Your task to perform on an android device: Show the shopping cart on target.com. Image 0: 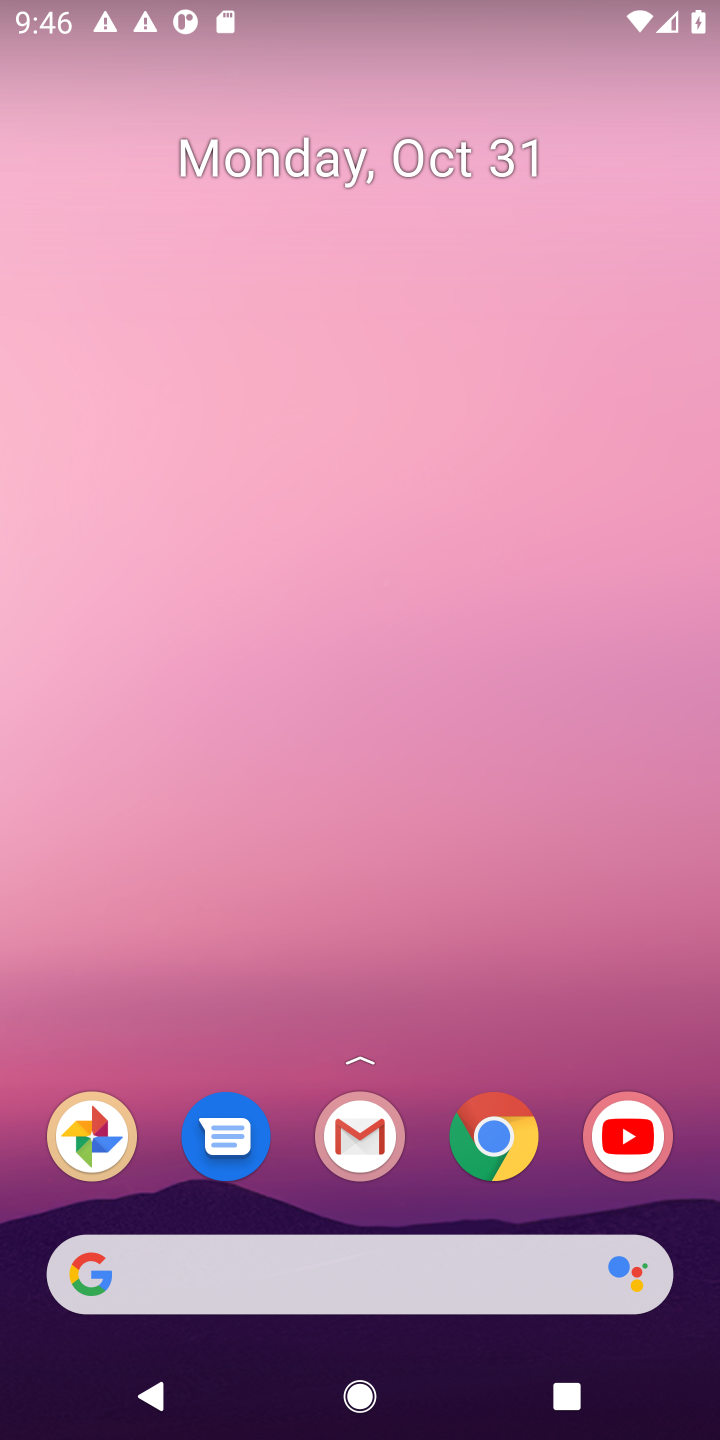
Step 0: click (135, 1275)
Your task to perform on an android device: Show the shopping cart on target.com. Image 1: 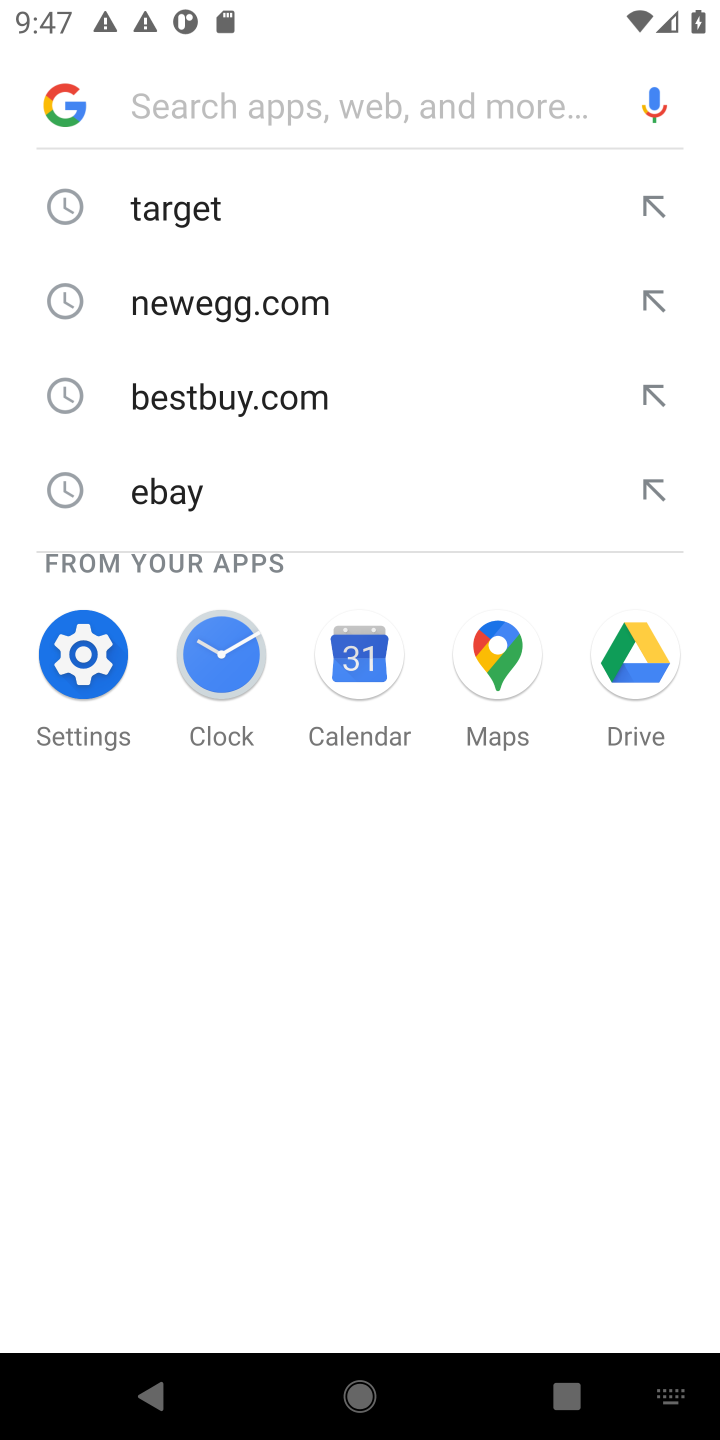
Step 1: press enter
Your task to perform on an android device: Show the shopping cart on target.com. Image 2: 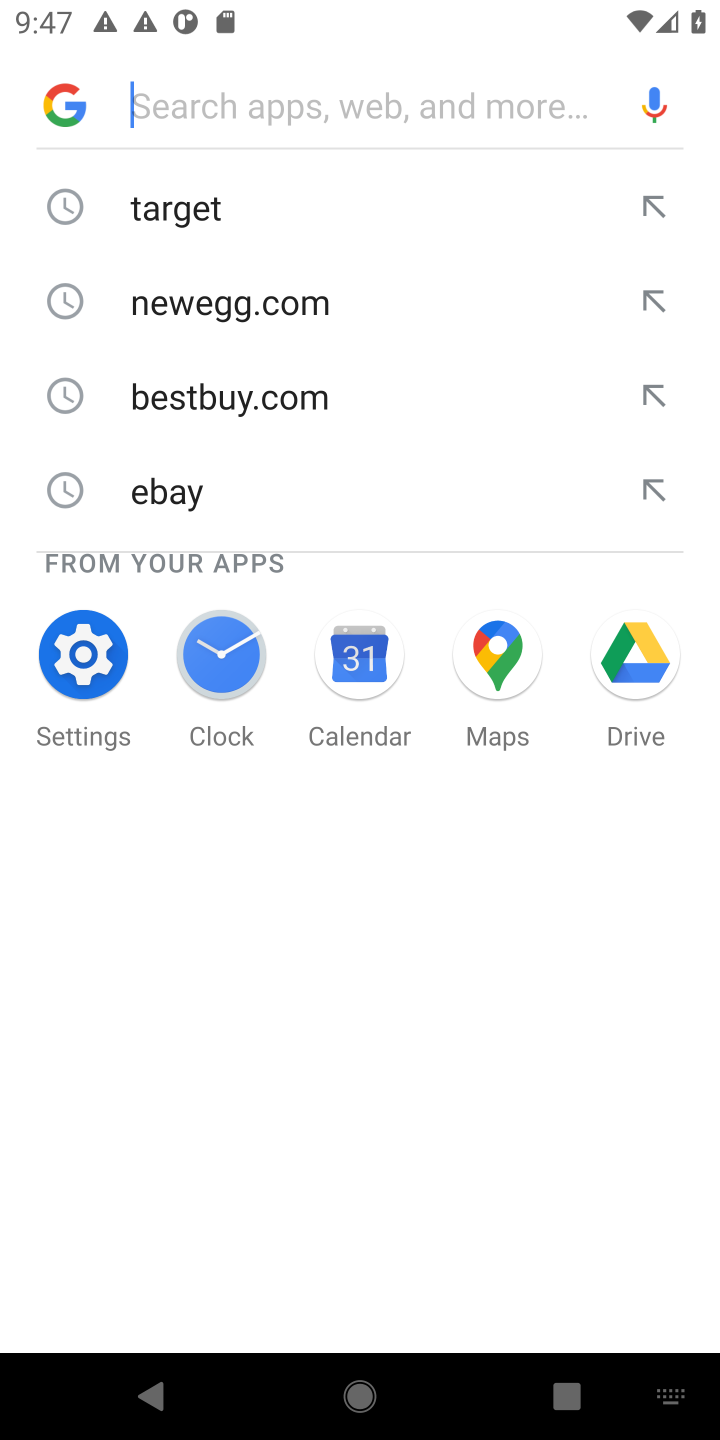
Step 2: type " target.com"
Your task to perform on an android device: Show the shopping cart on target.com. Image 3: 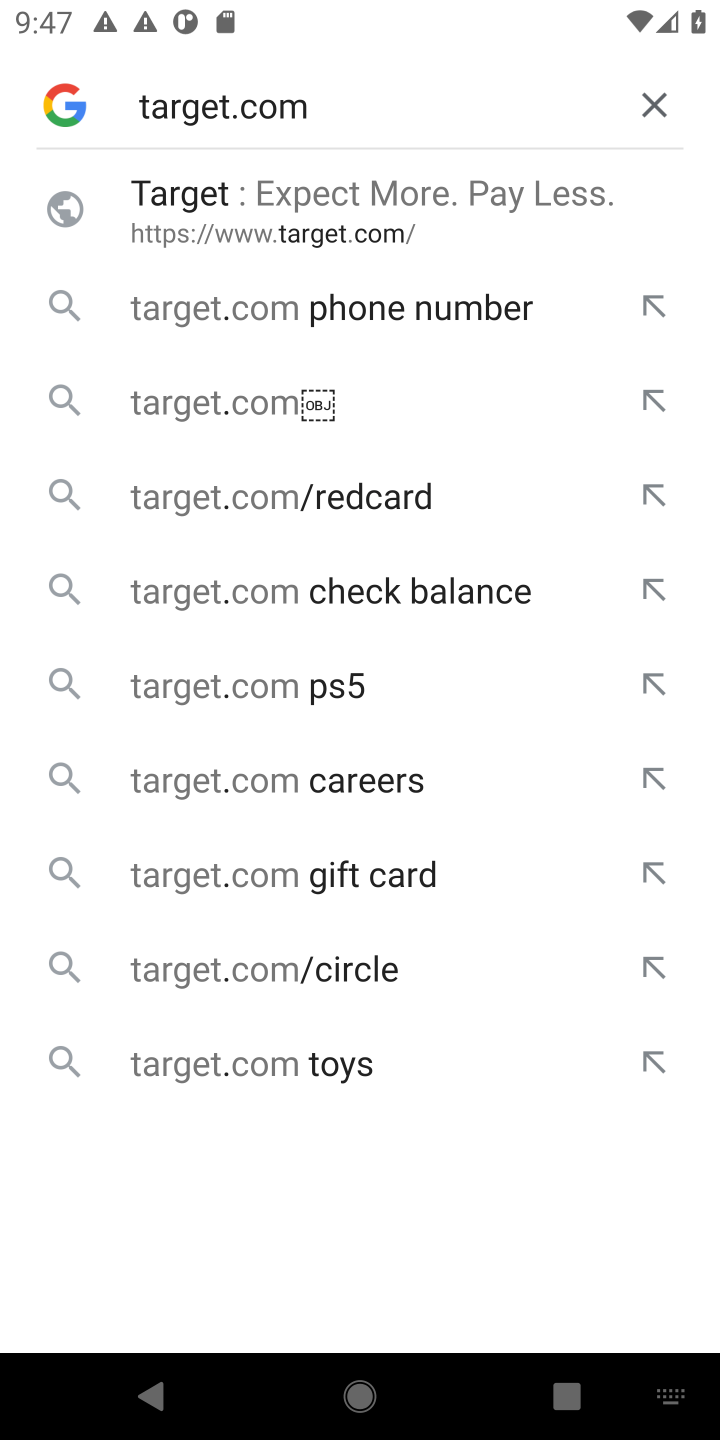
Step 3: press enter
Your task to perform on an android device: Show the shopping cart on target.com. Image 4: 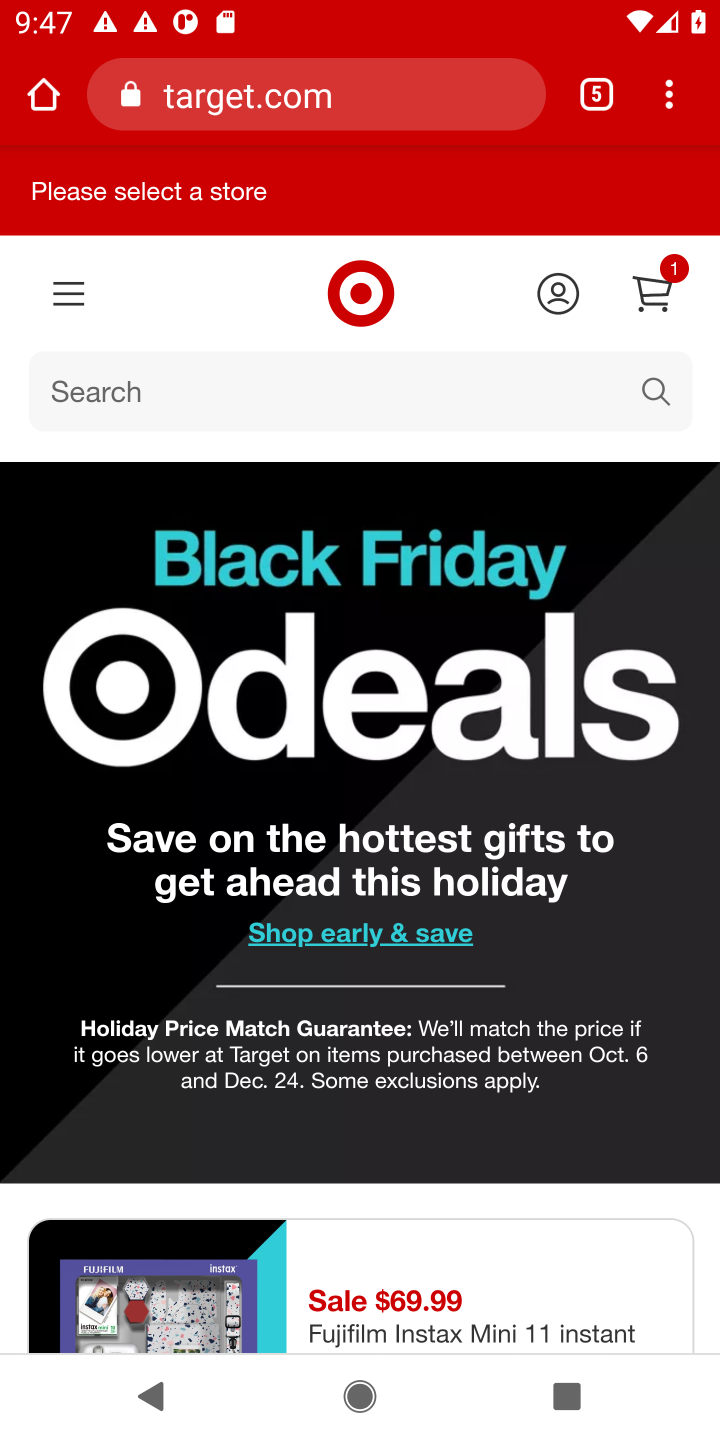
Step 4: click (102, 384)
Your task to perform on an android device: Show the shopping cart on target.com. Image 5: 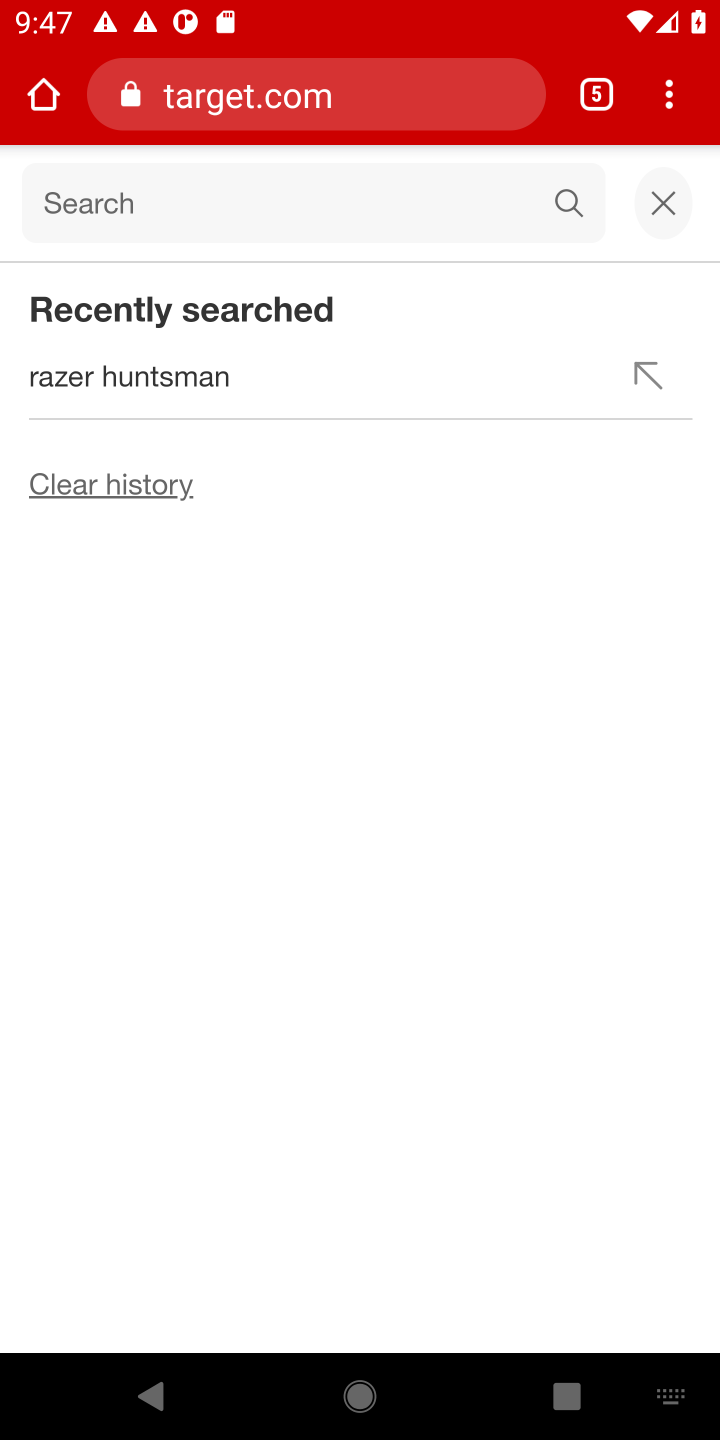
Step 5: press back button
Your task to perform on an android device: Show the shopping cart on target.com. Image 6: 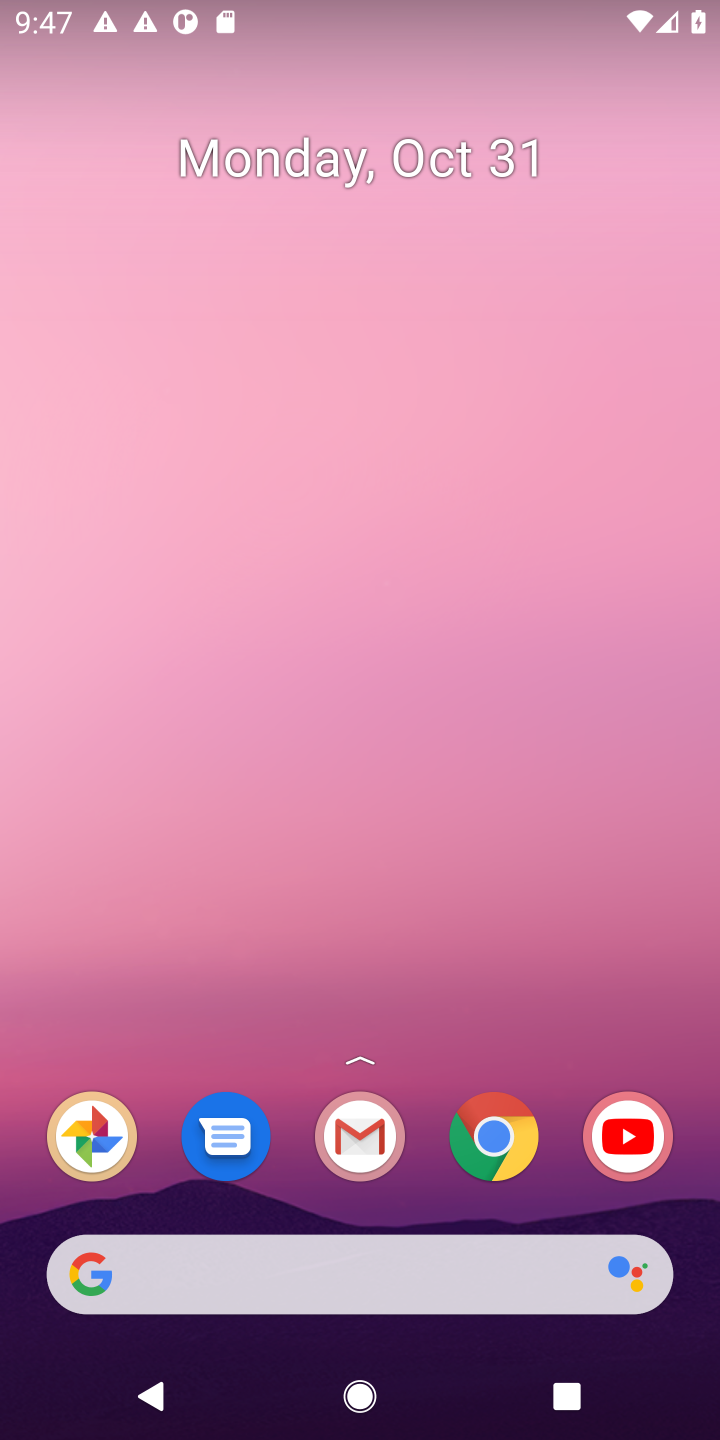
Step 6: click (141, 1278)
Your task to perform on an android device: Show the shopping cart on target.com. Image 7: 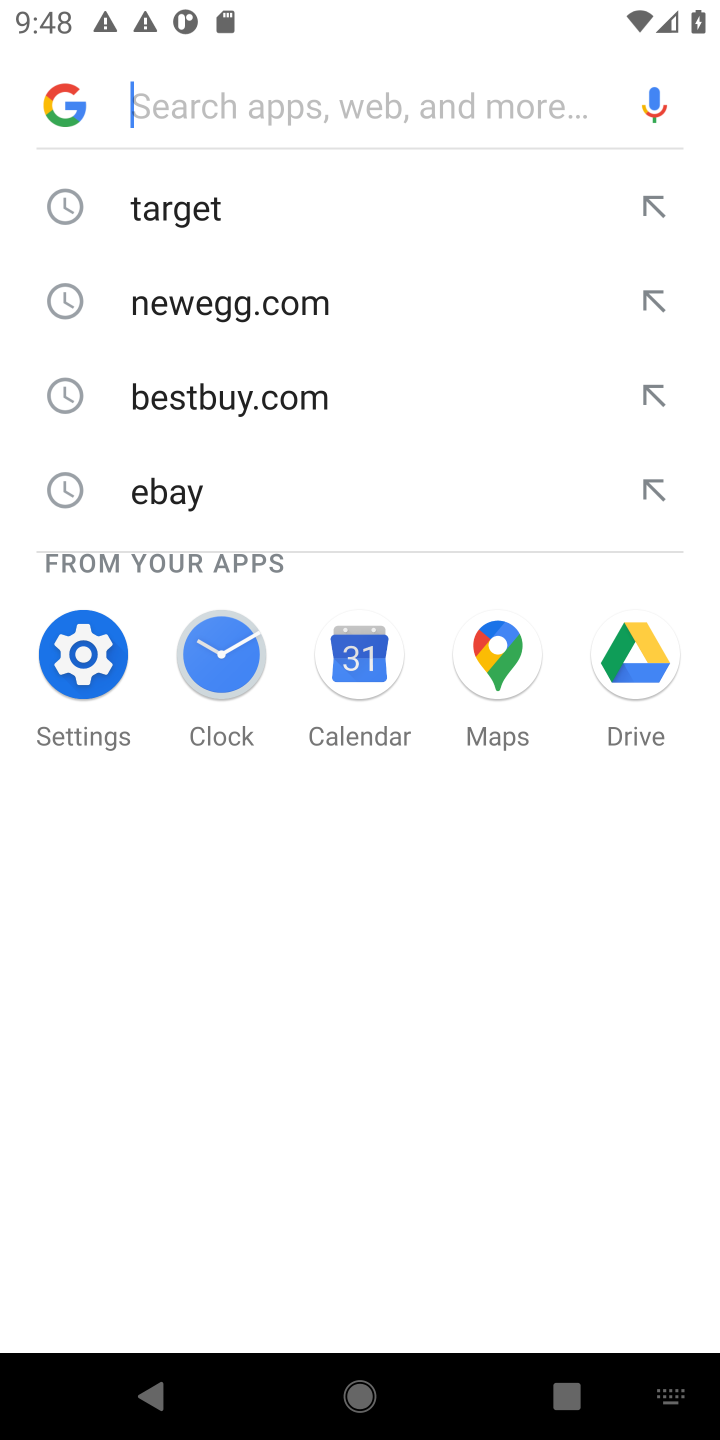
Step 7: type " target.com."
Your task to perform on an android device: Show the shopping cart on target.com. Image 8: 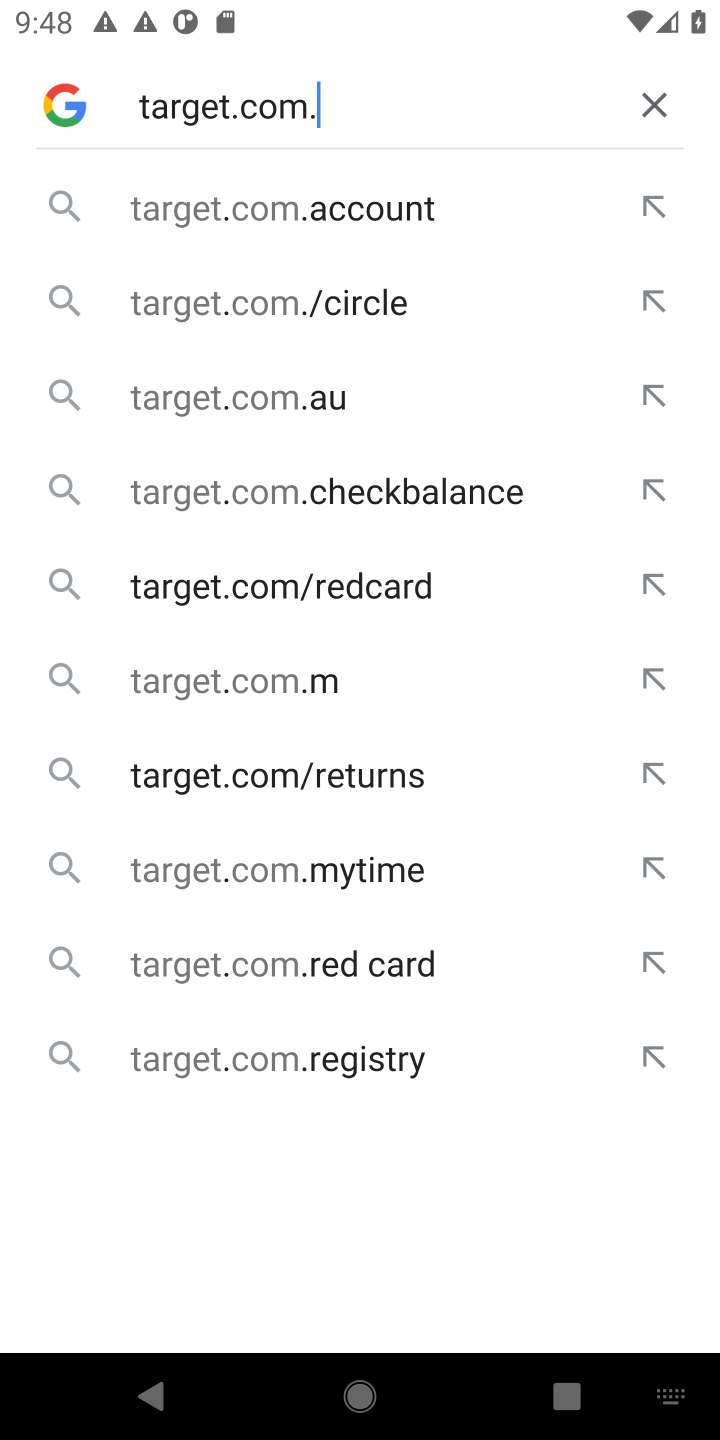
Step 8: press enter
Your task to perform on an android device: Show the shopping cart on target.com. Image 9: 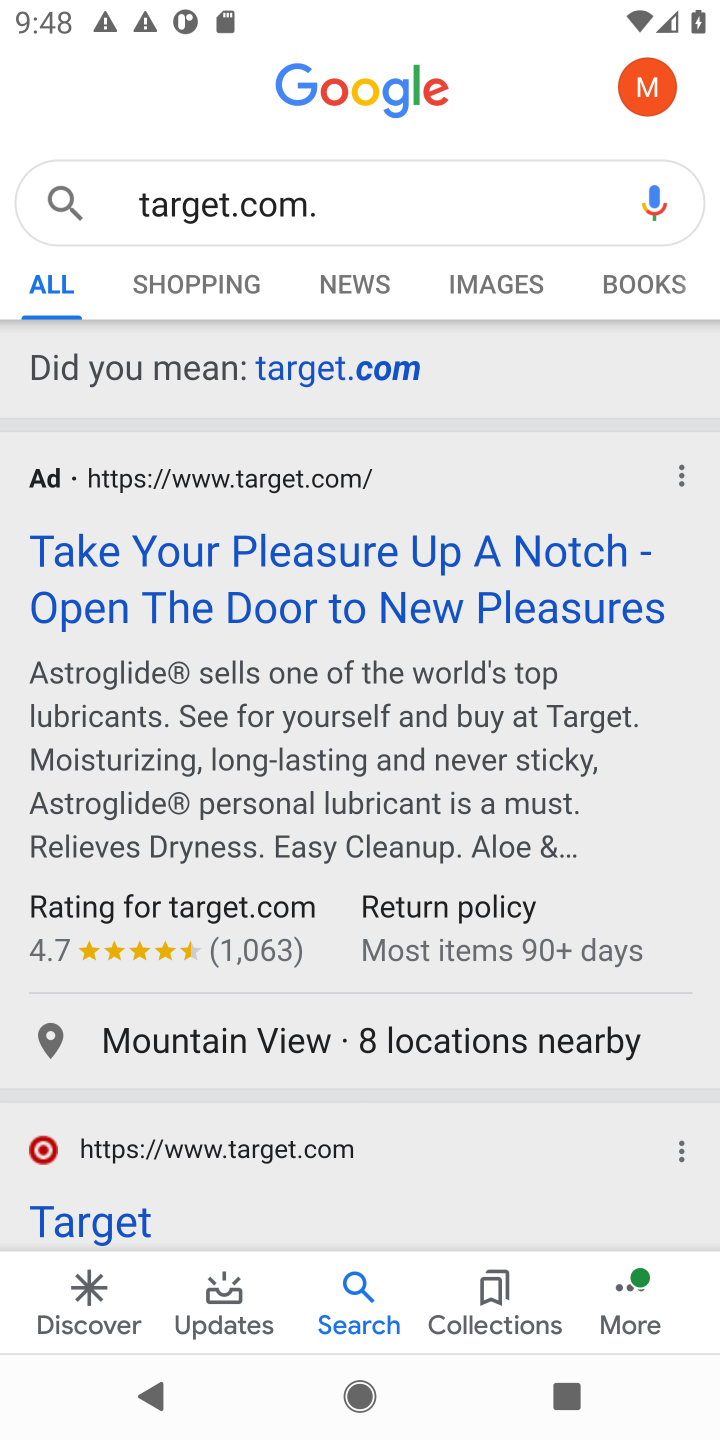
Step 9: drag from (315, 1126) to (309, 431)
Your task to perform on an android device: Show the shopping cart on target.com. Image 10: 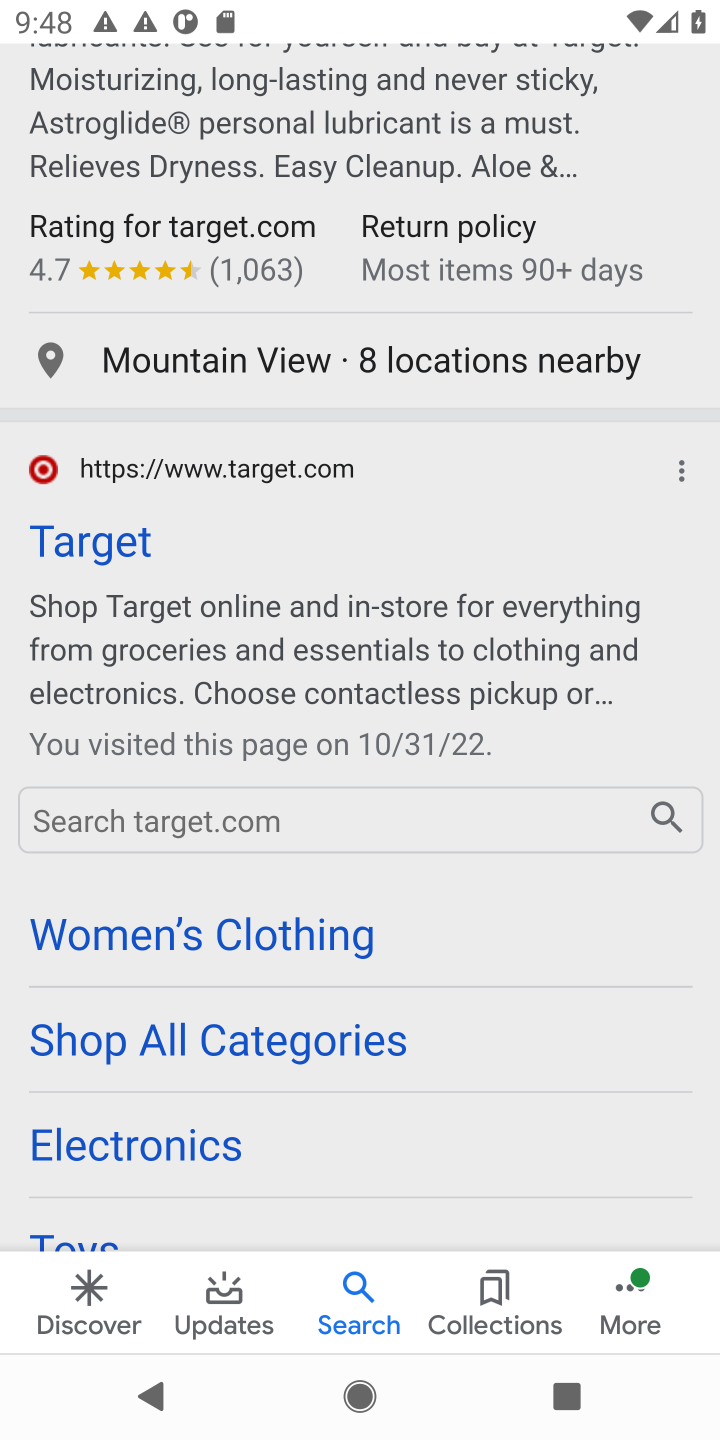
Step 10: click (110, 547)
Your task to perform on an android device: Show the shopping cart on target.com. Image 11: 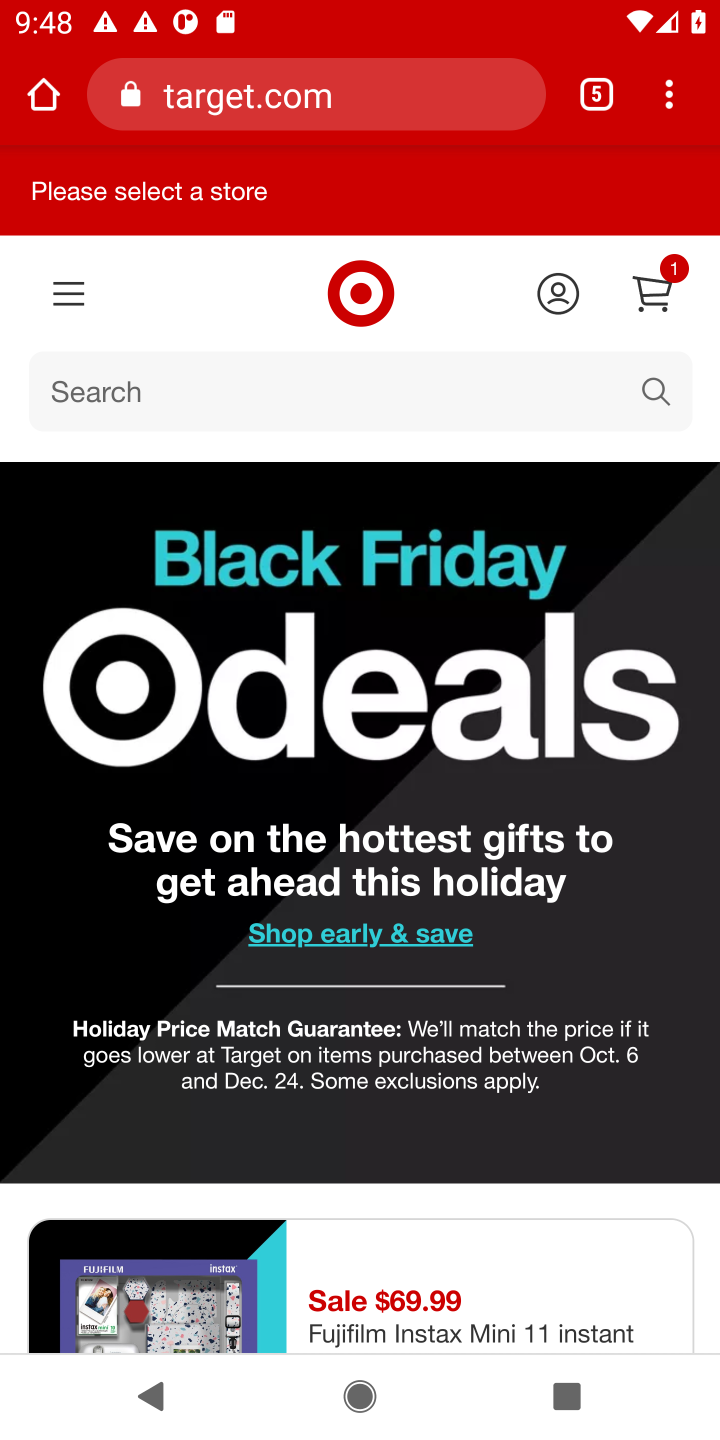
Step 11: click (653, 300)
Your task to perform on an android device: Show the shopping cart on target.com. Image 12: 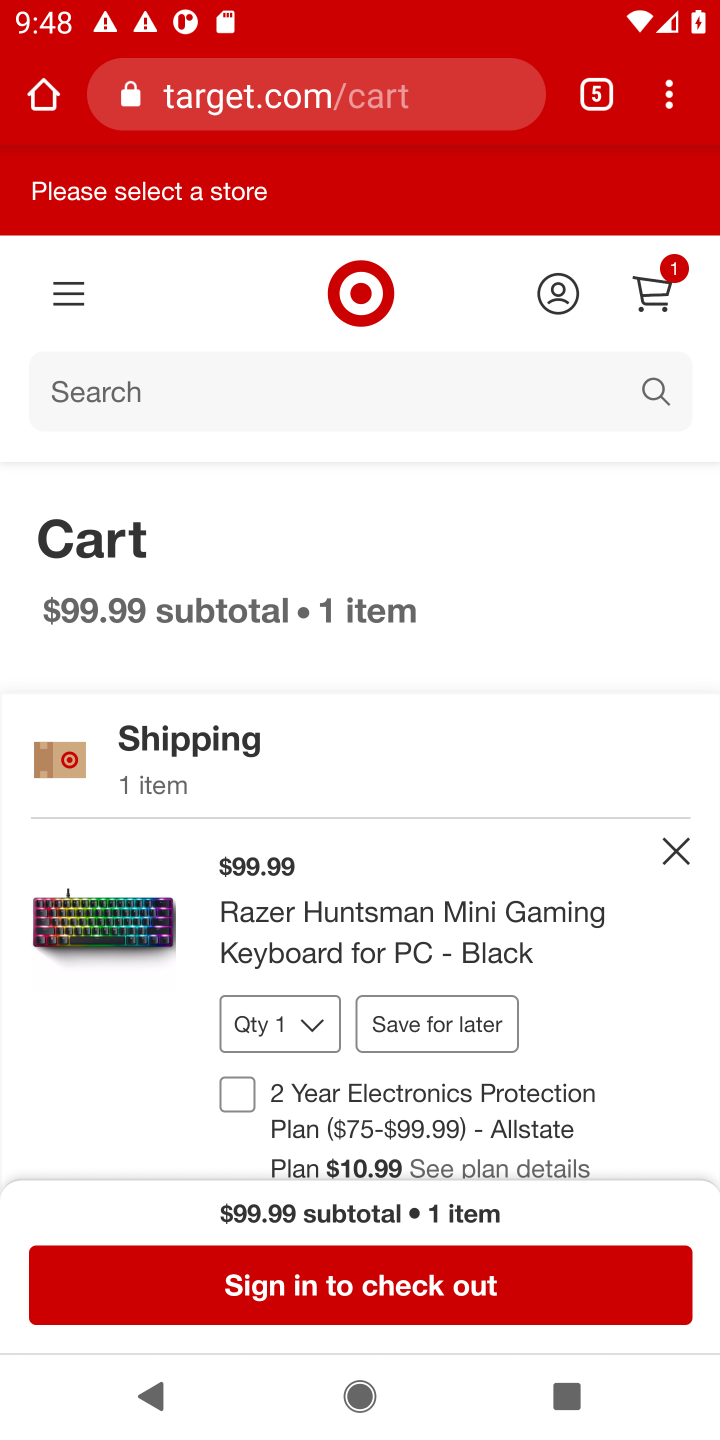
Step 12: task complete